Your task to perform on an android device: Open maps Image 0: 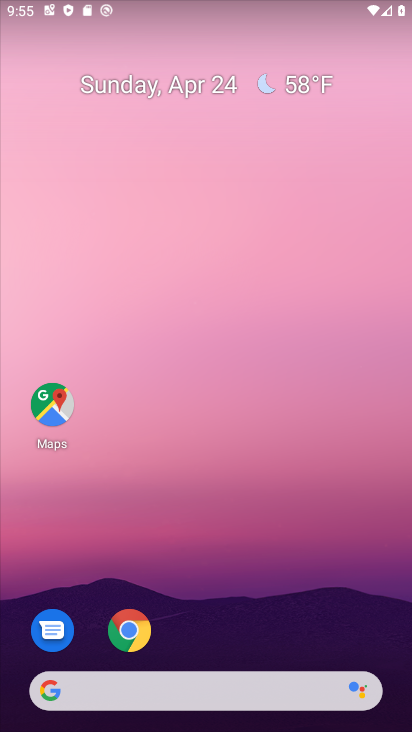
Step 0: drag from (242, 708) to (275, 118)
Your task to perform on an android device: Open maps Image 1: 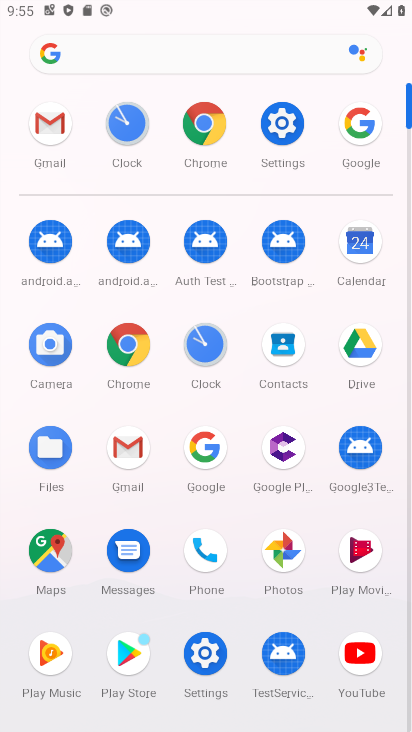
Step 1: click (45, 565)
Your task to perform on an android device: Open maps Image 2: 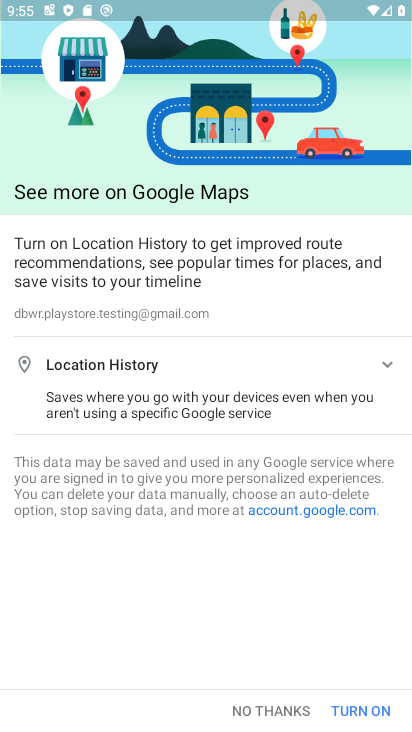
Step 2: click (359, 710)
Your task to perform on an android device: Open maps Image 3: 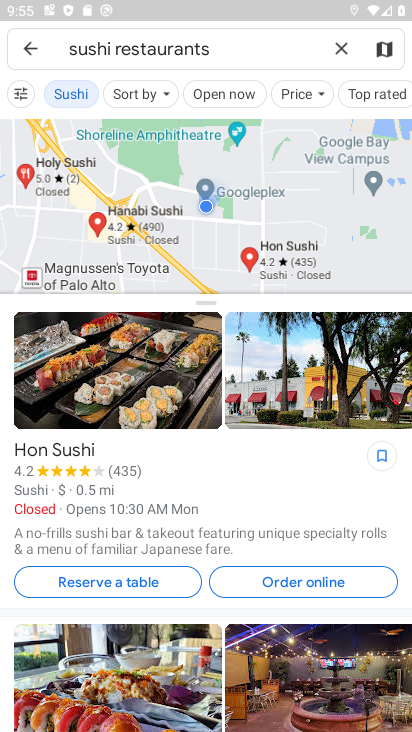
Step 3: task complete